Your task to perform on an android device: What's the weather? Image 0: 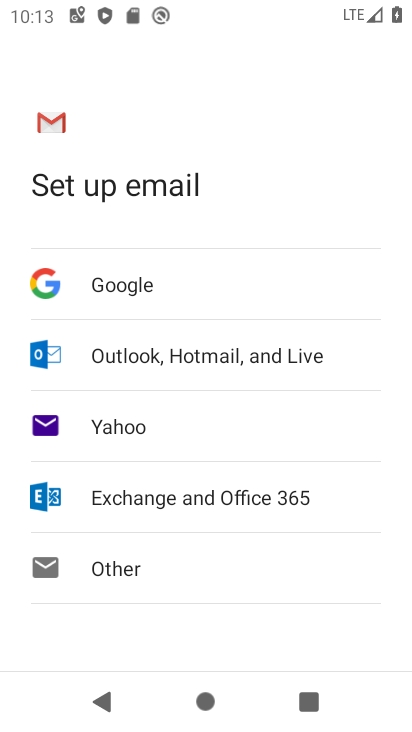
Step 0: press home button
Your task to perform on an android device: What's the weather? Image 1: 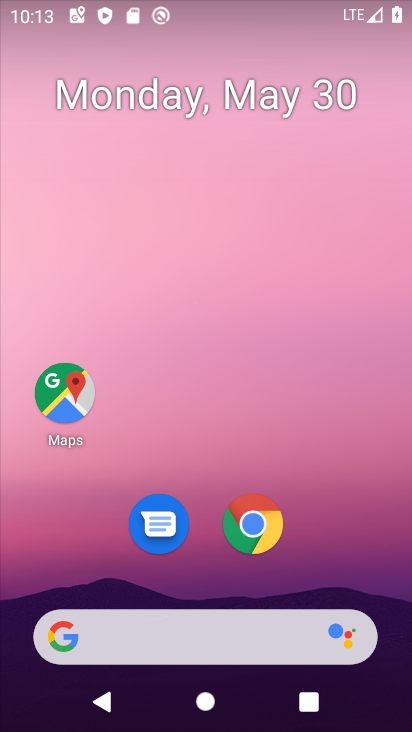
Step 1: click (270, 634)
Your task to perform on an android device: What's the weather? Image 2: 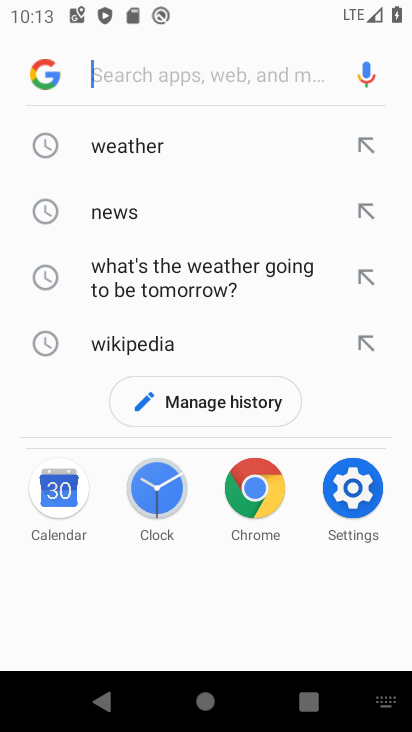
Step 2: click (129, 144)
Your task to perform on an android device: What's the weather? Image 3: 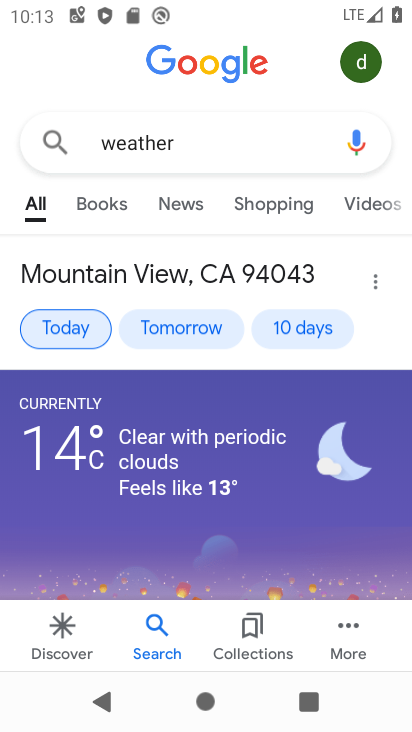
Step 3: click (82, 325)
Your task to perform on an android device: What's the weather? Image 4: 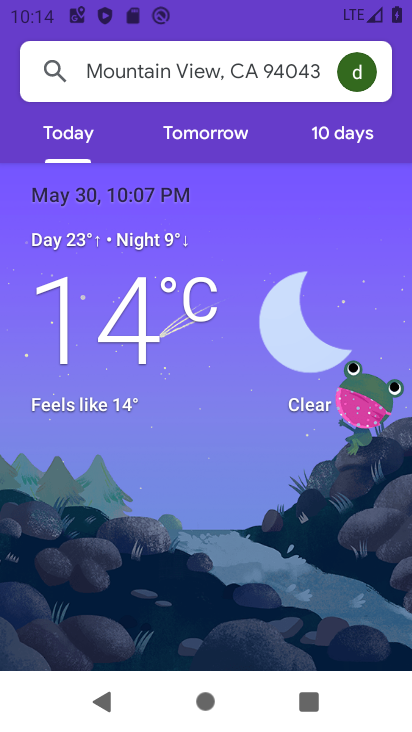
Step 4: task complete